Your task to perform on an android device: turn off location Image 0: 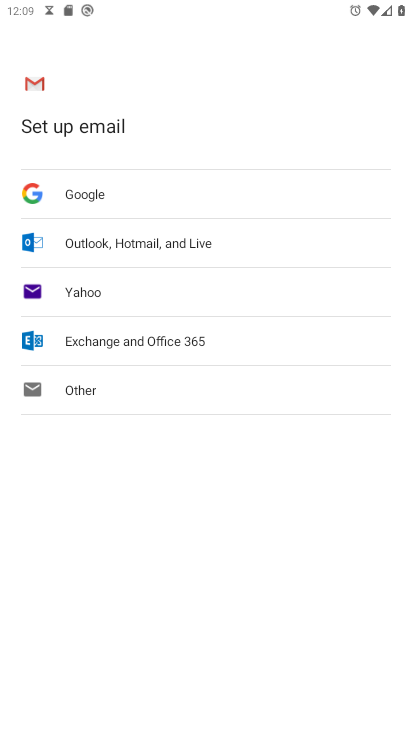
Step 0: press home button
Your task to perform on an android device: turn off location Image 1: 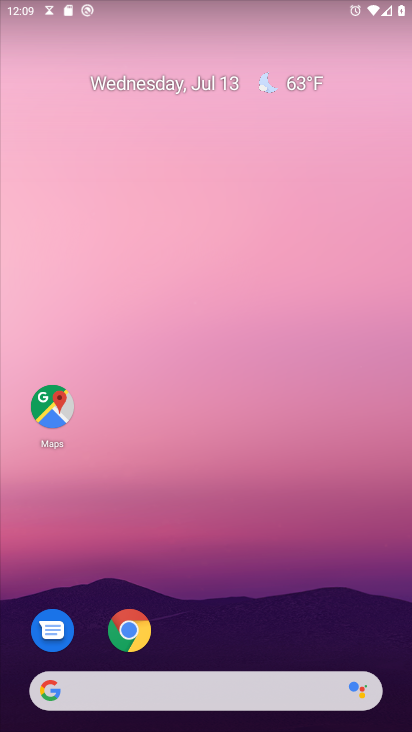
Step 1: drag from (214, 691) to (211, 134)
Your task to perform on an android device: turn off location Image 2: 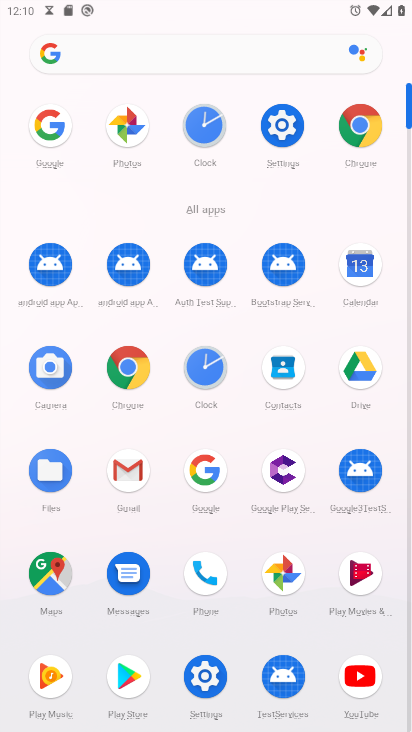
Step 2: click (275, 133)
Your task to perform on an android device: turn off location Image 3: 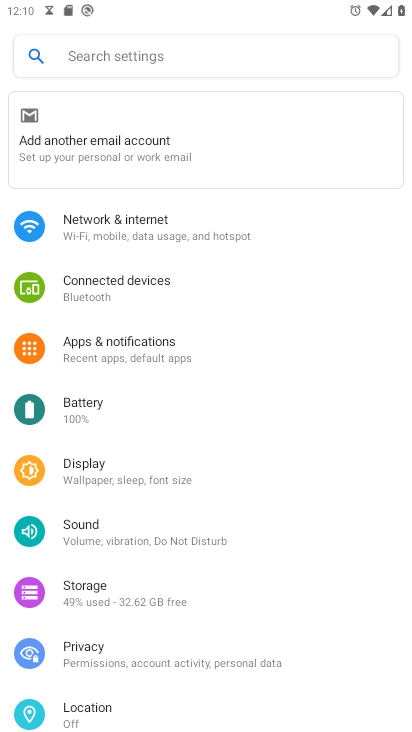
Step 3: click (104, 707)
Your task to perform on an android device: turn off location Image 4: 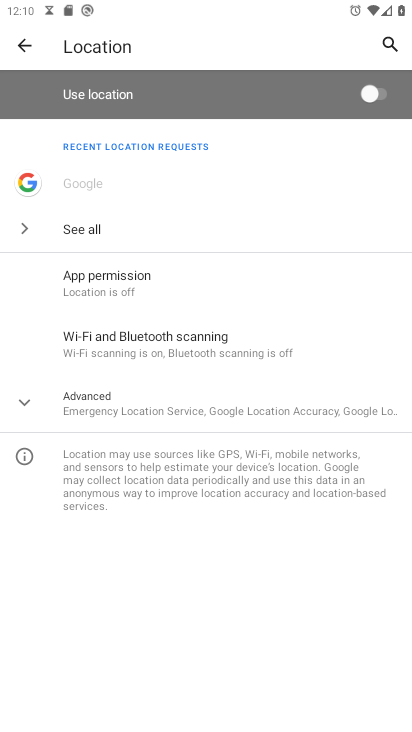
Step 4: task complete